Your task to perform on an android device: Open privacy settings Image 0: 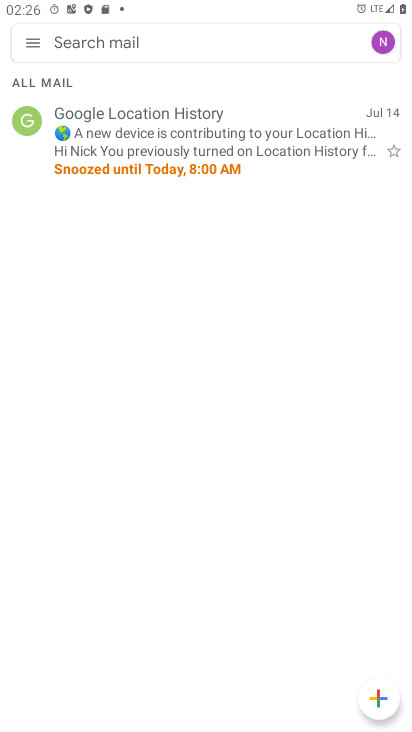
Step 0: press home button
Your task to perform on an android device: Open privacy settings Image 1: 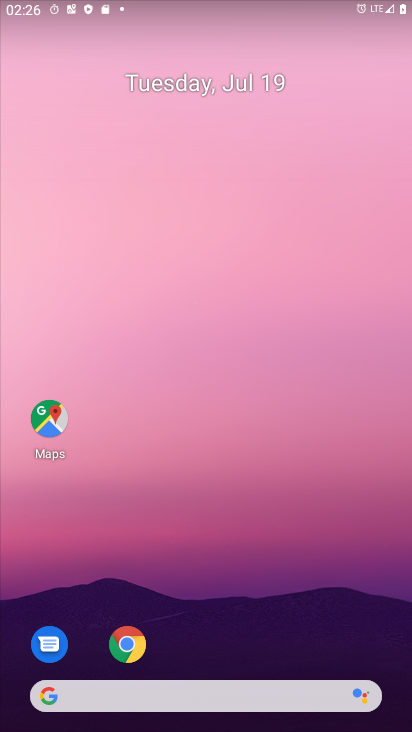
Step 1: drag from (203, 703) to (203, 357)
Your task to perform on an android device: Open privacy settings Image 2: 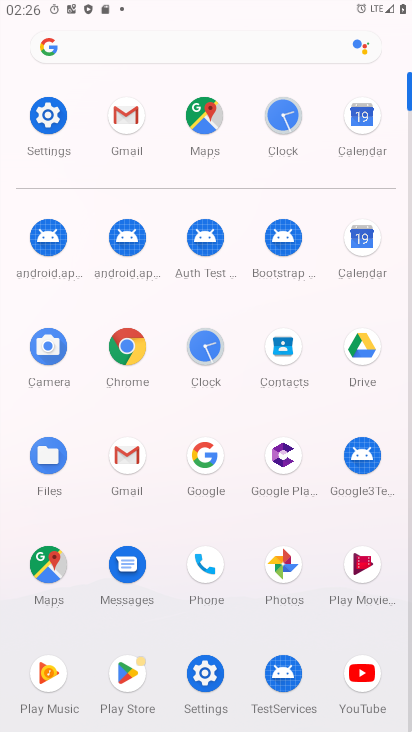
Step 2: click (44, 112)
Your task to perform on an android device: Open privacy settings Image 3: 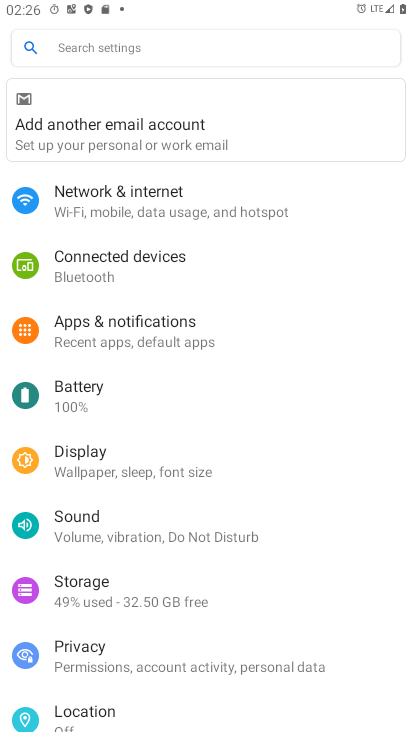
Step 3: click (77, 653)
Your task to perform on an android device: Open privacy settings Image 4: 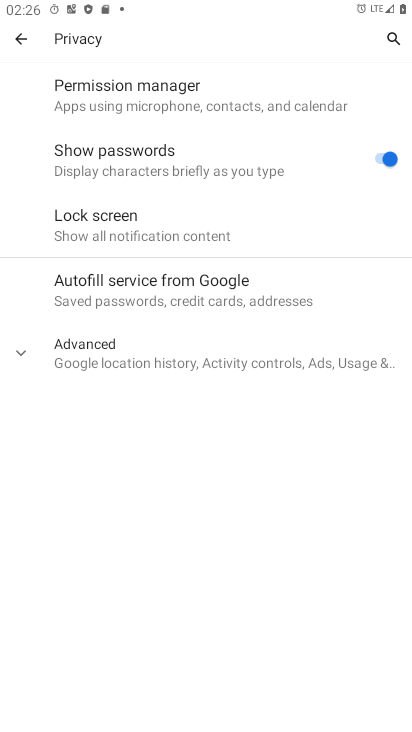
Step 4: task complete